Your task to perform on an android device: delete the emails in spam in the gmail app Image 0: 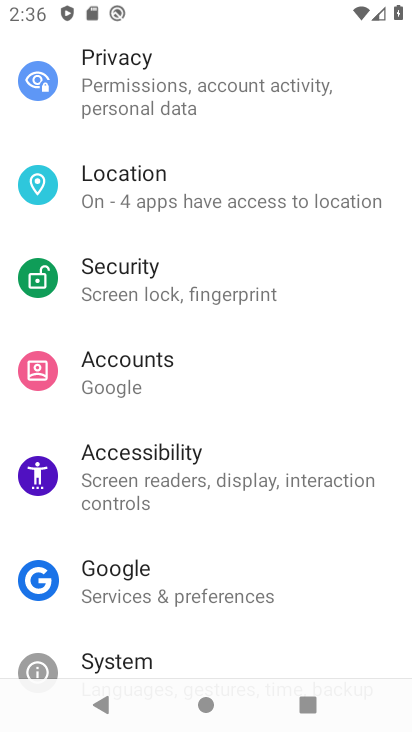
Step 0: press home button
Your task to perform on an android device: delete the emails in spam in the gmail app Image 1: 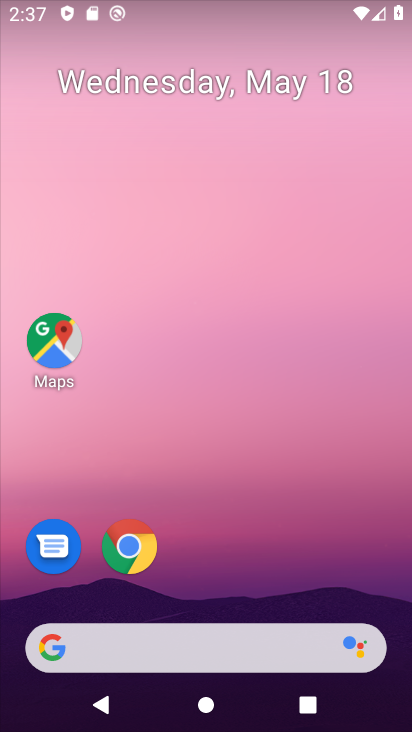
Step 1: drag from (217, 730) to (233, 238)
Your task to perform on an android device: delete the emails in spam in the gmail app Image 2: 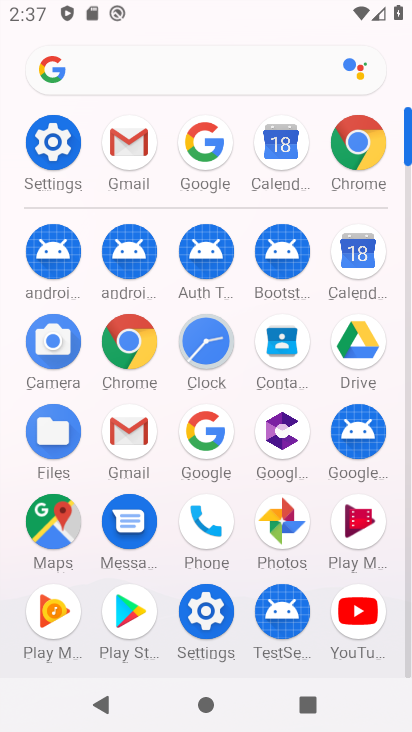
Step 2: click (129, 435)
Your task to perform on an android device: delete the emails in spam in the gmail app Image 3: 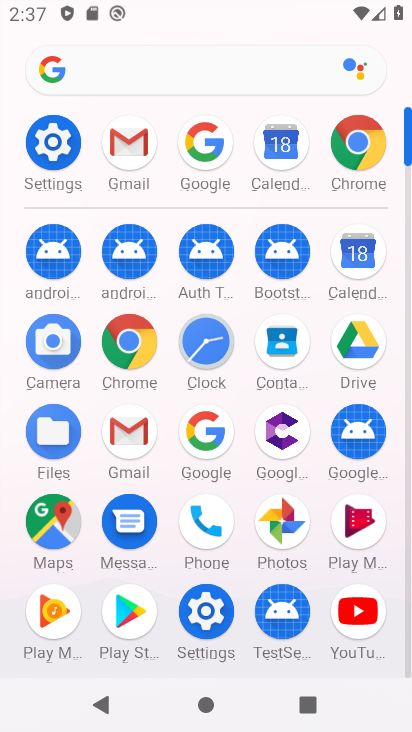
Step 3: click (125, 431)
Your task to perform on an android device: delete the emails in spam in the gmail app Image 4: 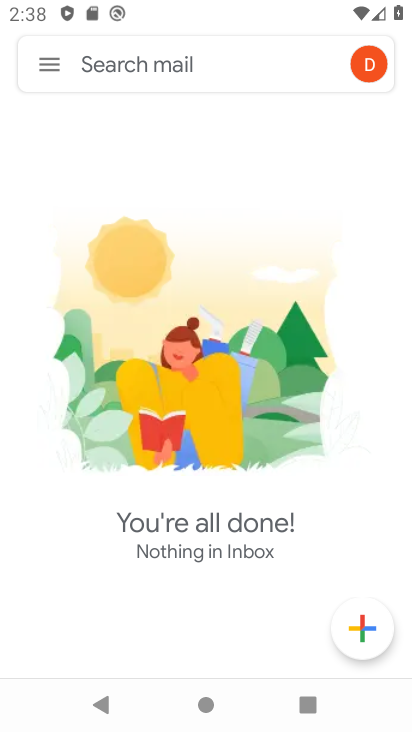
Step 4: task complete